Your task to perform on an android device: open the mobile data screen to see how much data has been used Image 0: 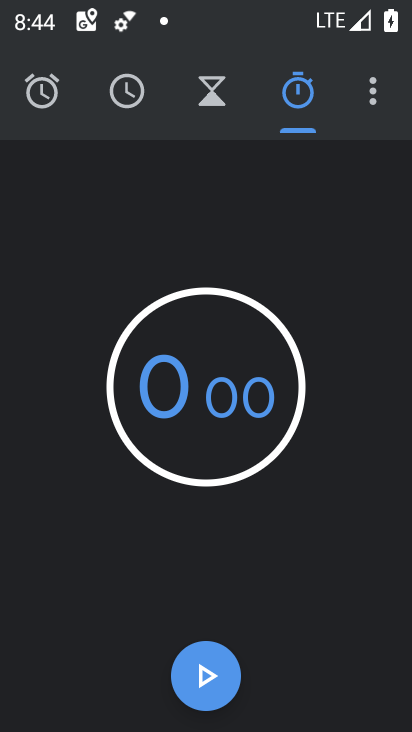
Step 0: press home button
Your task to perform on an android device: open the mobile data screen to see how much data has been used Image 1: 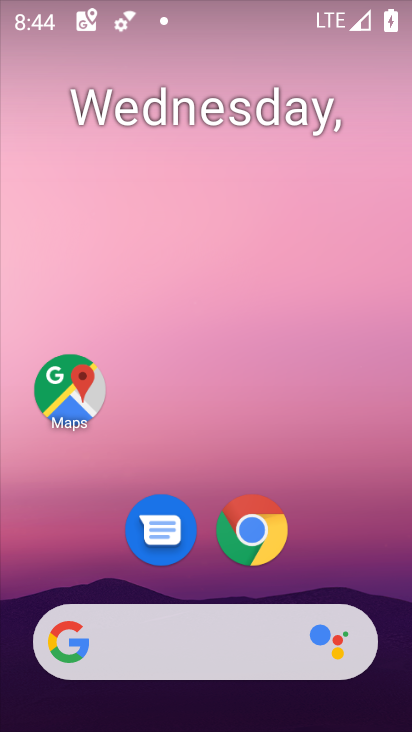
Step 1: drag from (401, 597) to (299, 24)
Your task to perform on an android device: open the mobile data screen to see how much data has been used Image 2: 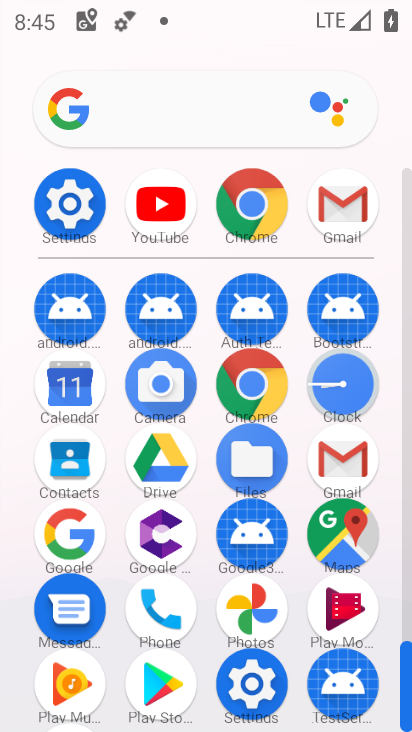
Step 2: click (74, 206)
Your task to perform on an android device: open the mobile data screen to see how much data has been used Image 3: 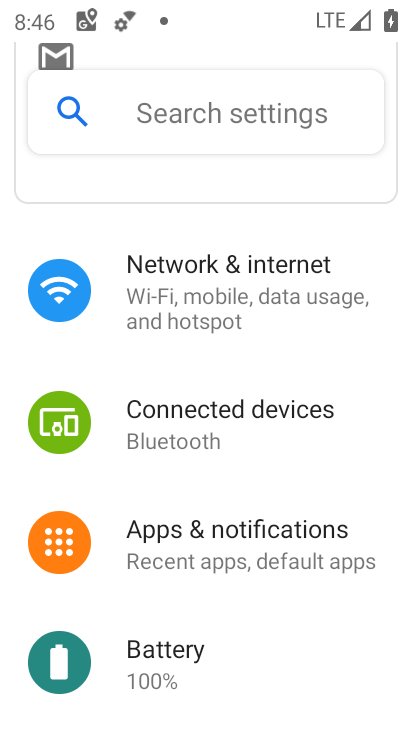
Step 3: task complete